Your task to perform on an android device: move an email to a new category in the gmail app Image 0: 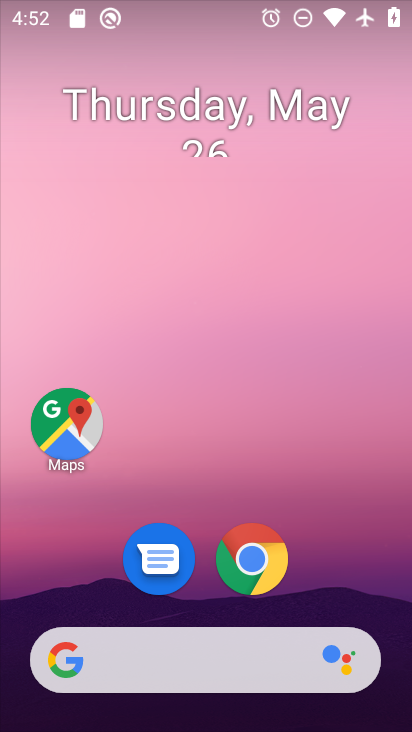
Step 0: drag from (332, 538) to (161, 3)
Your task to perform on an android device: move an email to a new category in the gmail app Image 1: 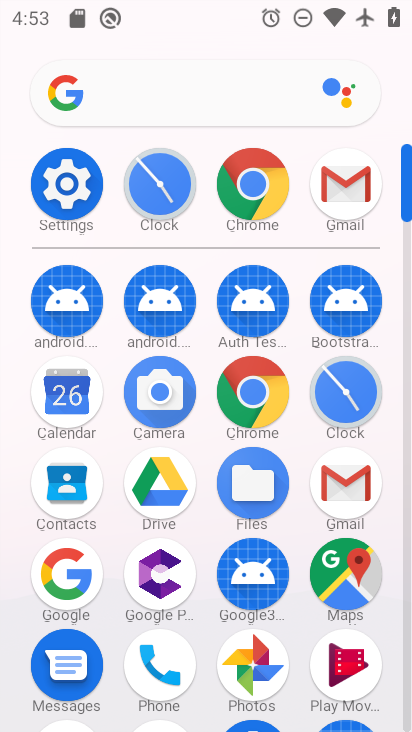
Step 1: click (349, 470)
Your task to perform on an android device: move an email to a new category in the gmail app Image 2: 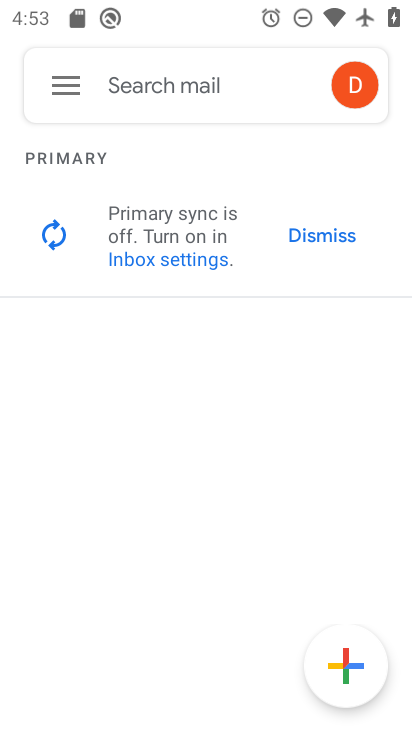
Step 2: click (84, 91)
Your task to perform on an android device: move an email to a new category in the gmail app Image 3: 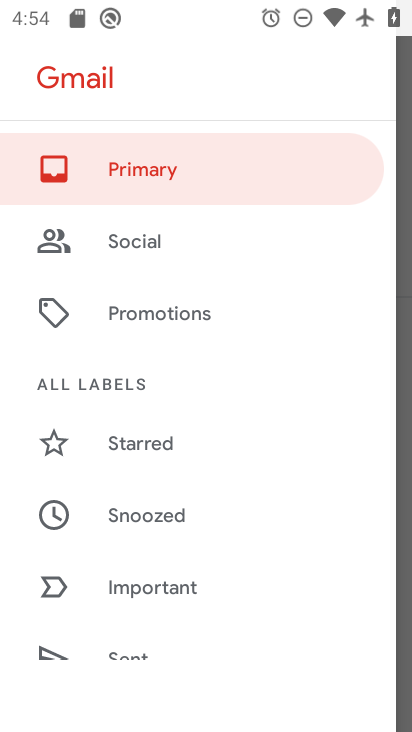
Step 3: task complete